Your task to perform on an android device: Open the map Image 0: 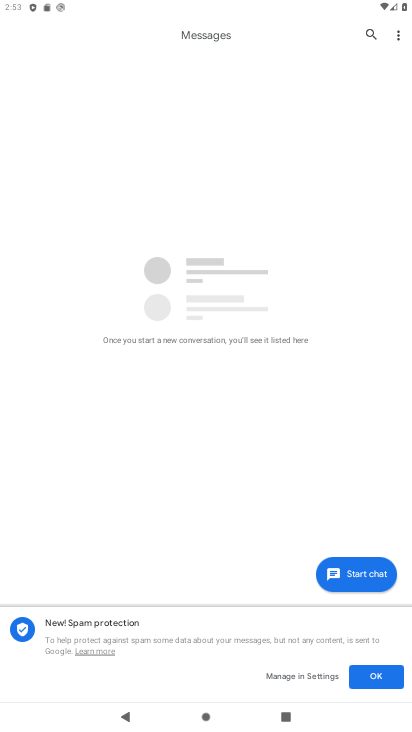
Step 0: press home button
Your task to perform on an android device: Open the map Image 1: 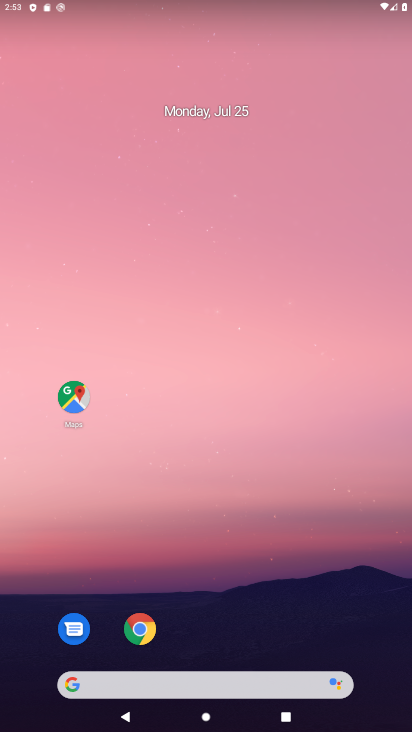
Step 1: click (71, 395)
Your task to perform on an android device: Open the map Image 2: 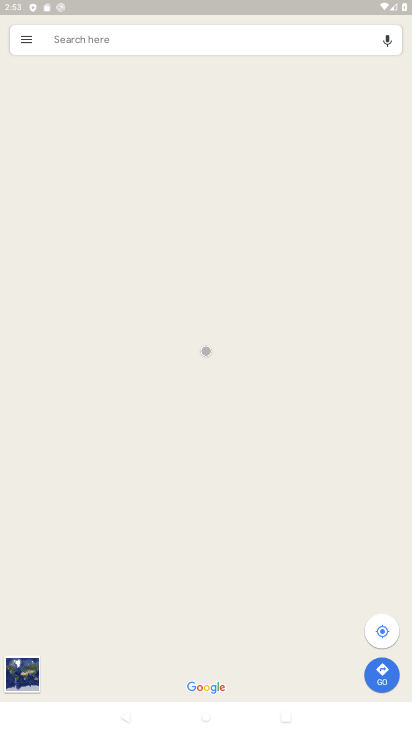
Step 2: task complete